Your task to perform on an android device: toggle pop-ups in chrome Image 0: 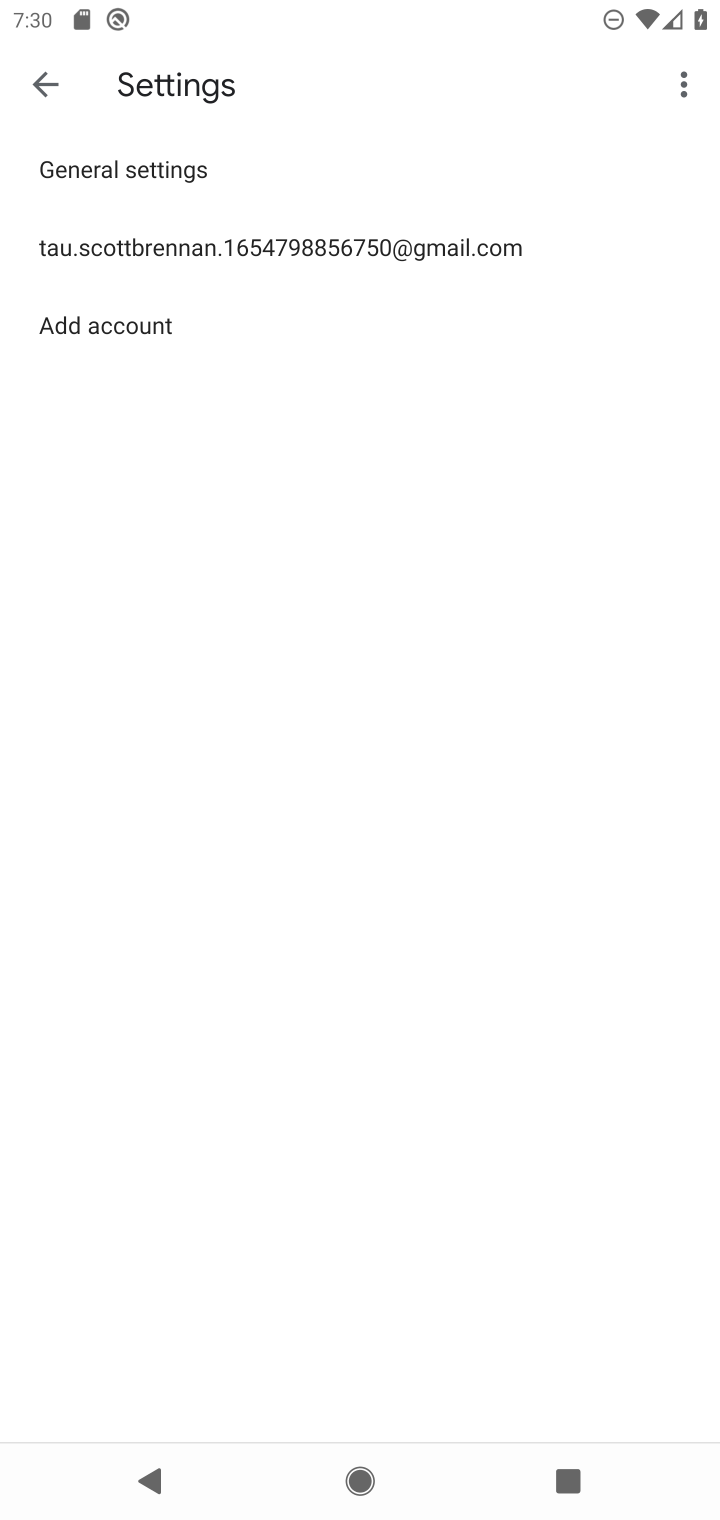
Step 0: press home button
Your task to perform on an android device: toggle pop-ups in chrome Image 1: 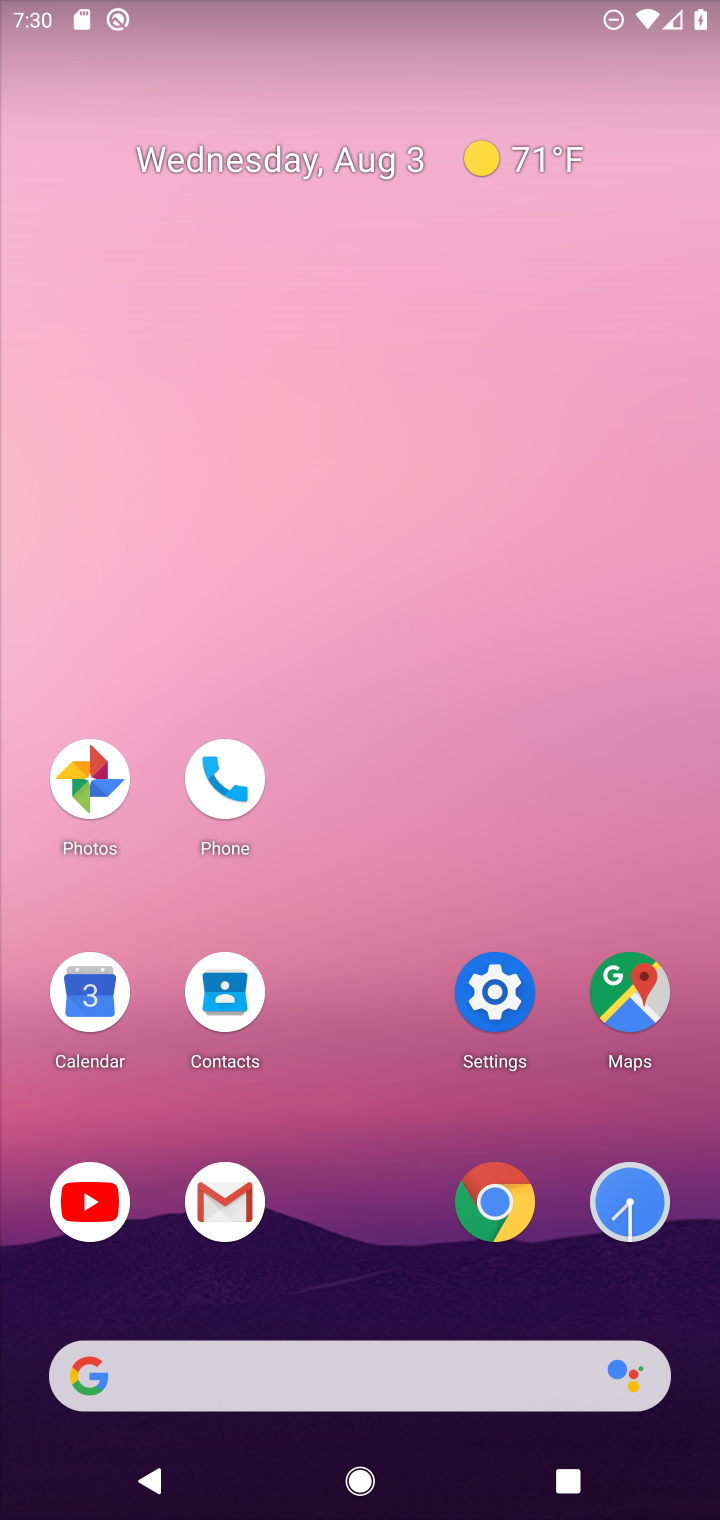
Step 1: click (506, 1211)
Your task to perform on an android device: toggle pop-ups in chrome Image 2: 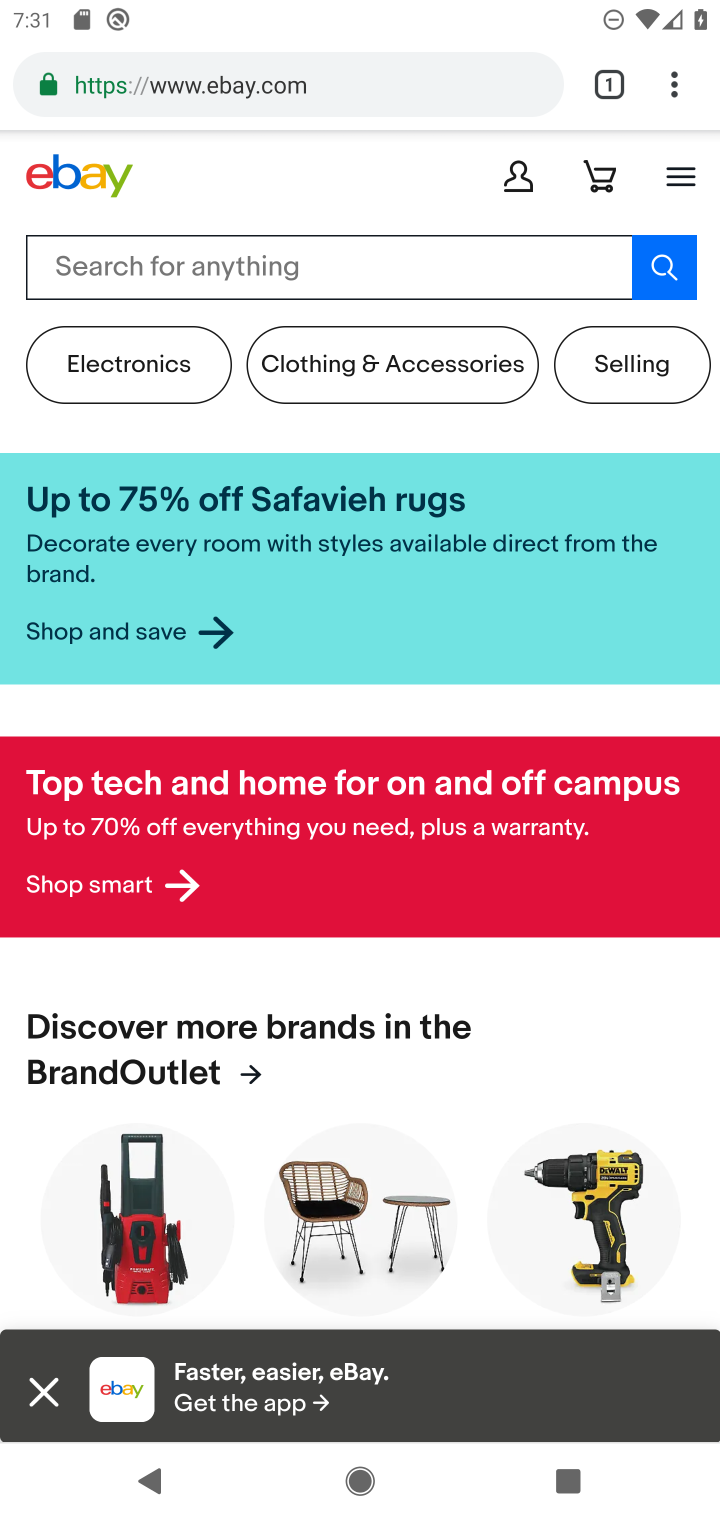
Step 2: click (678, 69)
Your task to perform on an android device: toggle pop-ups in chrome Image 3: 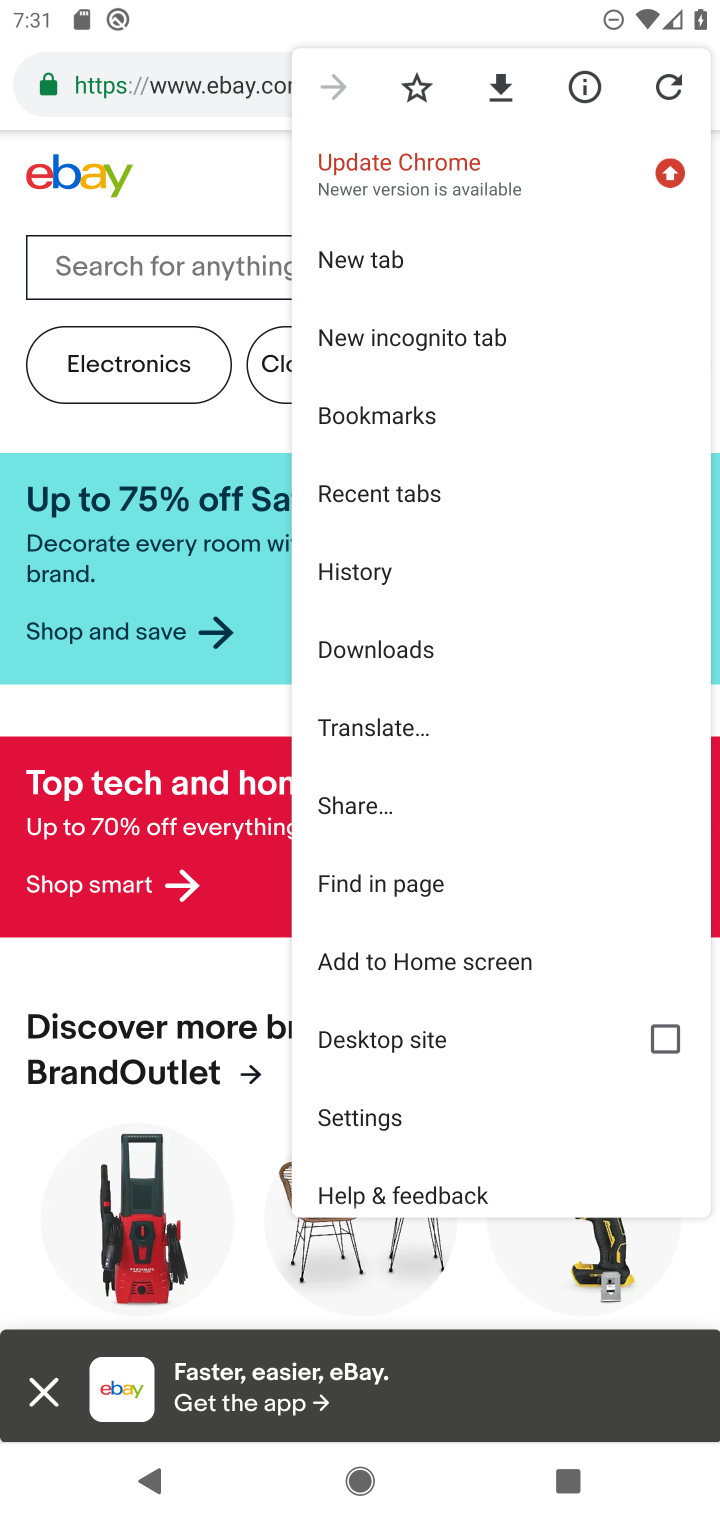
Step 3: click (355, 1116)
Your task to perform on an android device: toggle pop-ups in chrome Image 4: 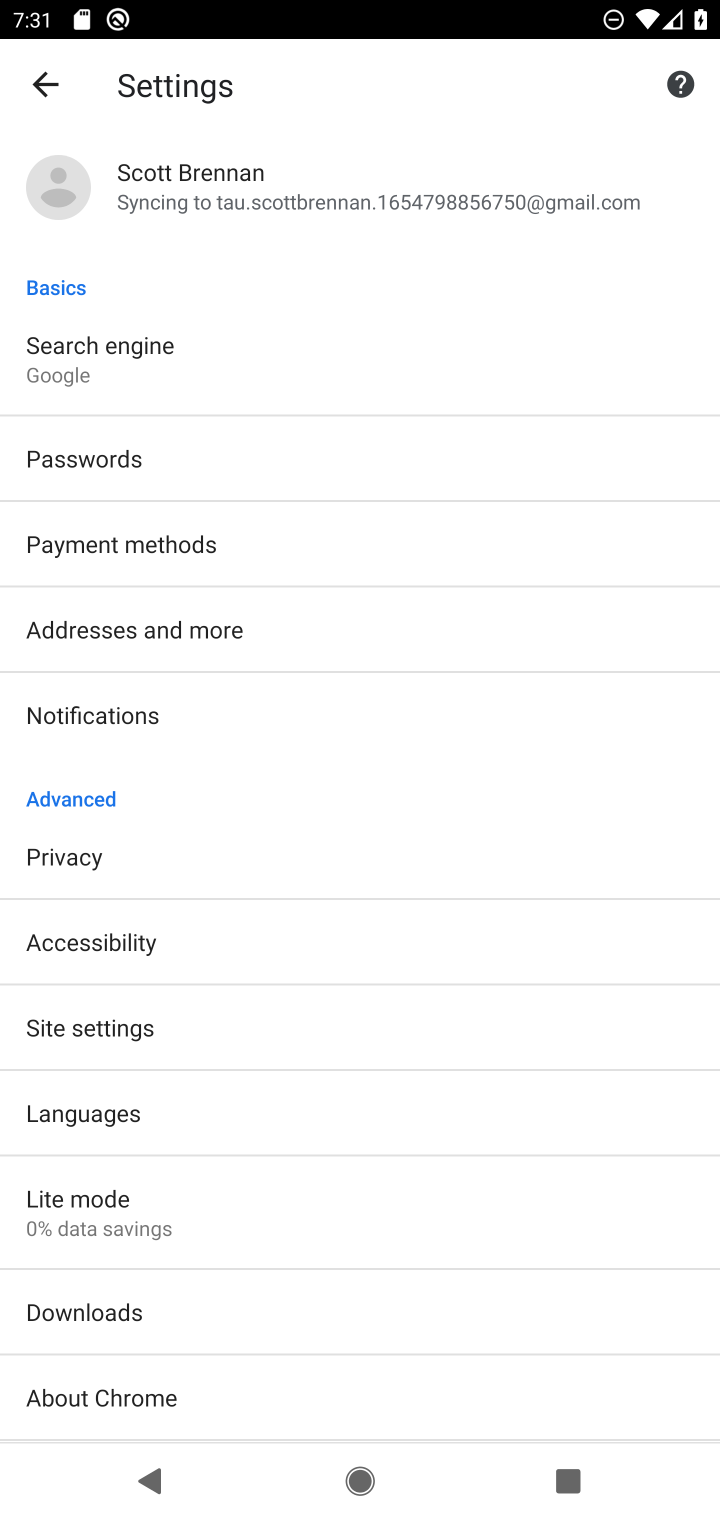
Step 4: click (95, 1027)
Your task to perform on an android device: toggle pop-ups in chrome Image 5: 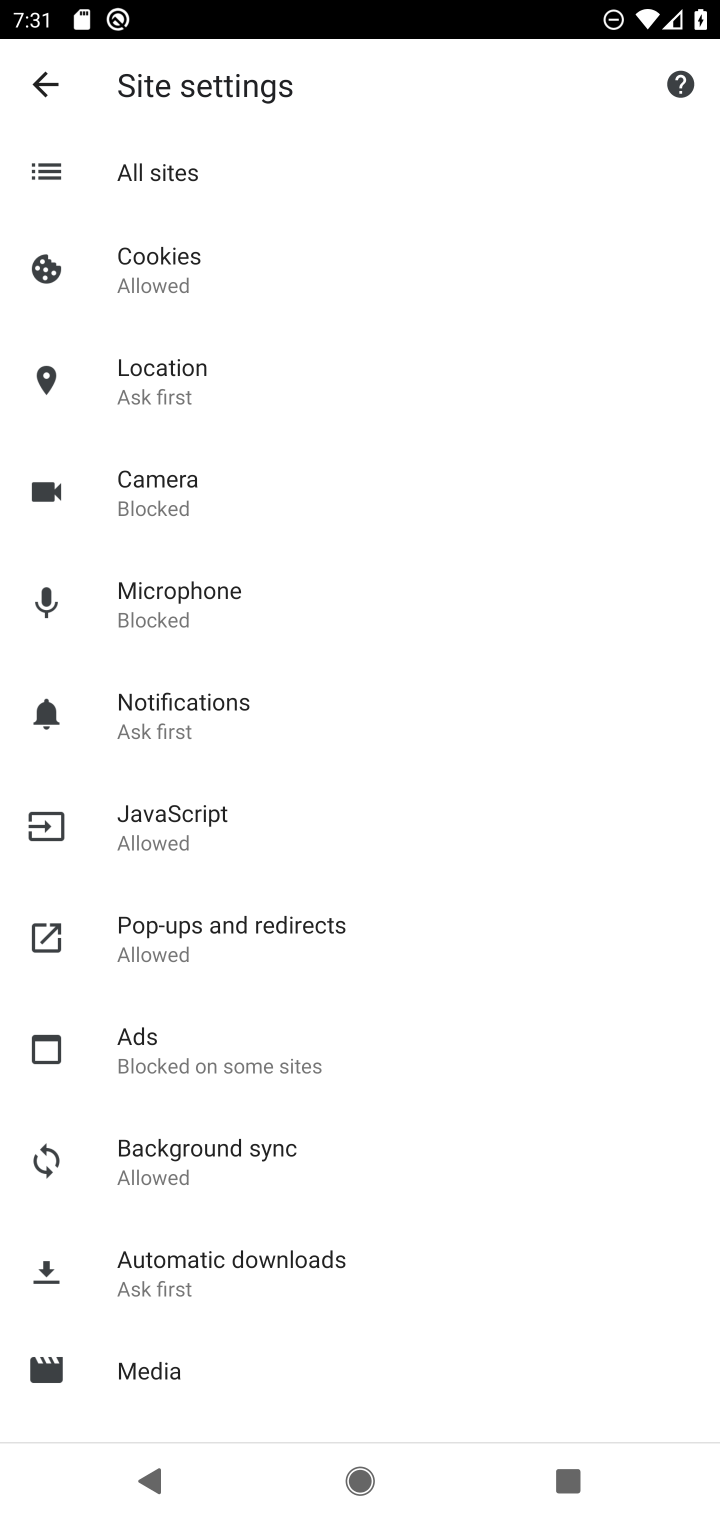
Step 5: click (164, 921)
Your task to perform on an android device: toggle pop-ups in chrome Image 6: 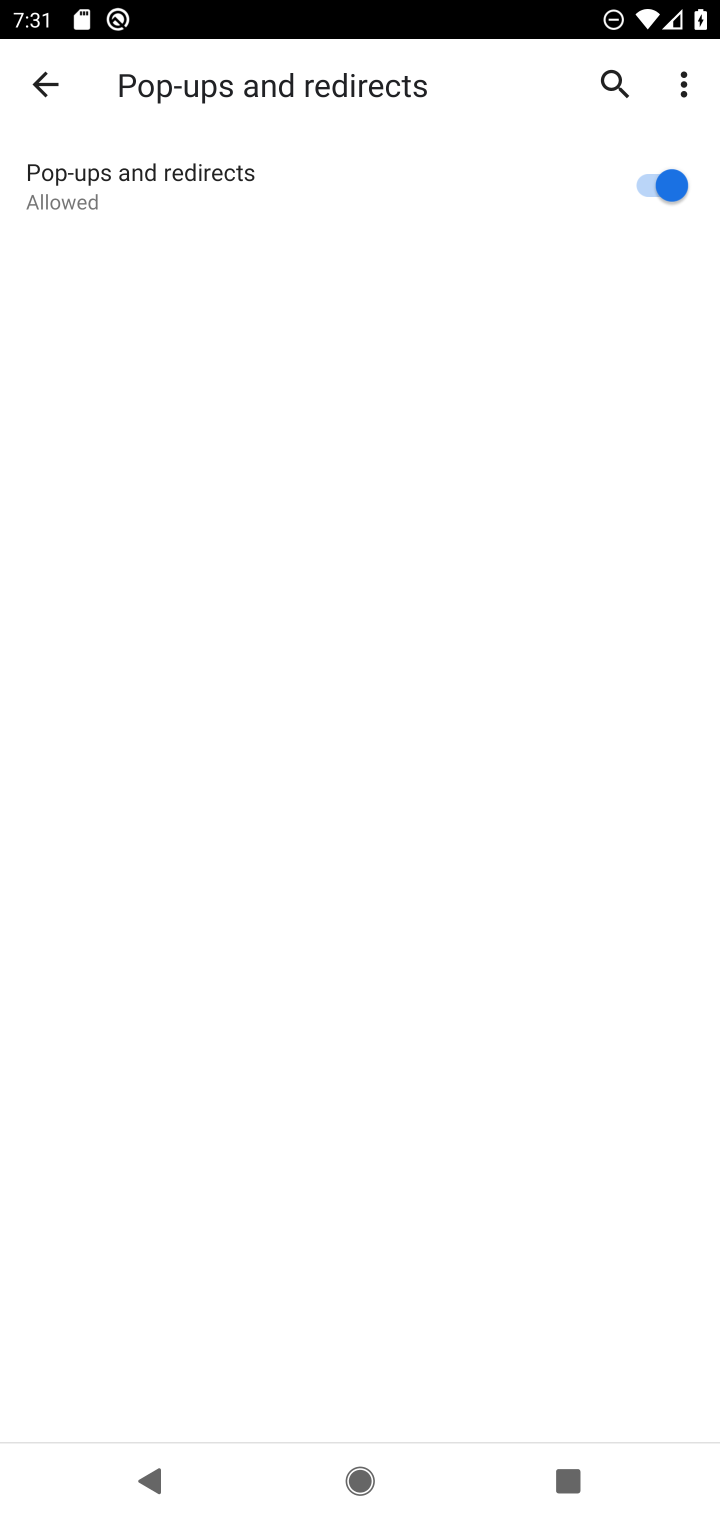
Step 6: click (668, 172)
Your task to perform on an android device: toggle pop-ups in chrome Image 7: 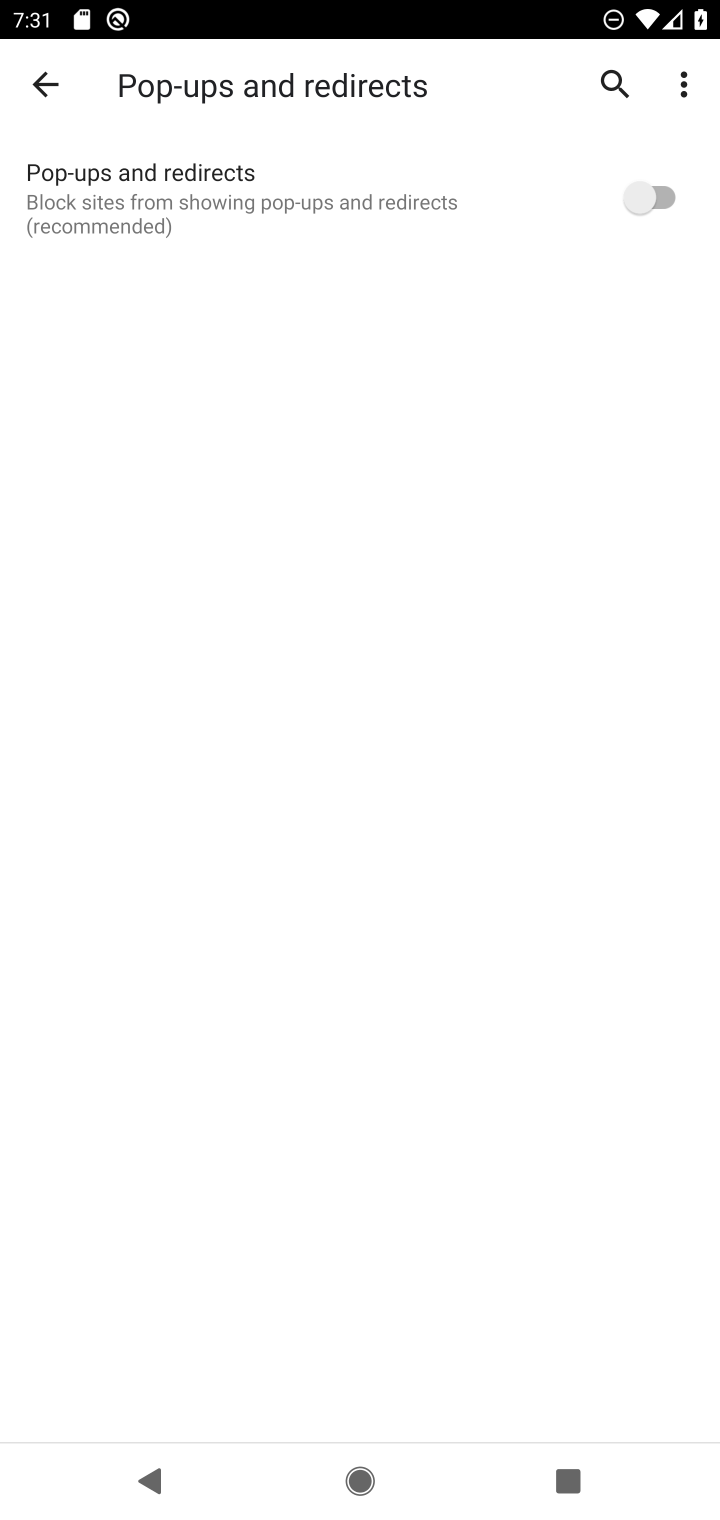
Step 7: task complete